Your task to perform on an android device: Go to privacy settings Image 0: 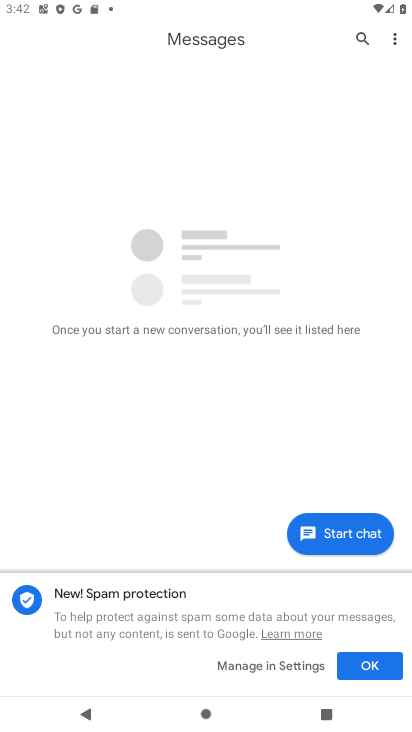
Step 0: press home button
Your task to perform on an android device: Go to privacy settings Image 1: 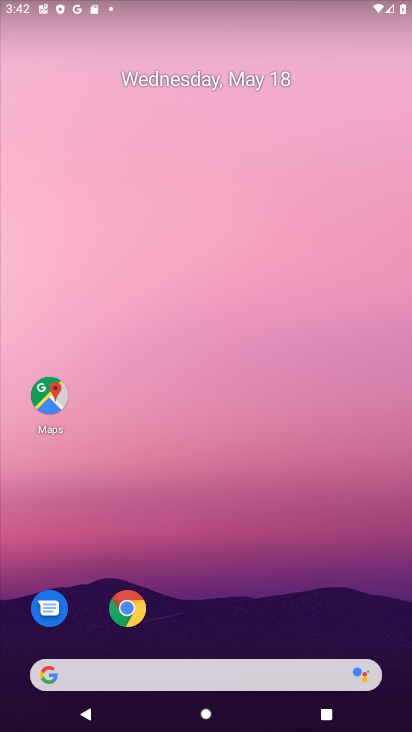
Step 1: drag from (208, 610) to (227, 199)
Your task to perform on an android device: Go to privacy settings Image 2: 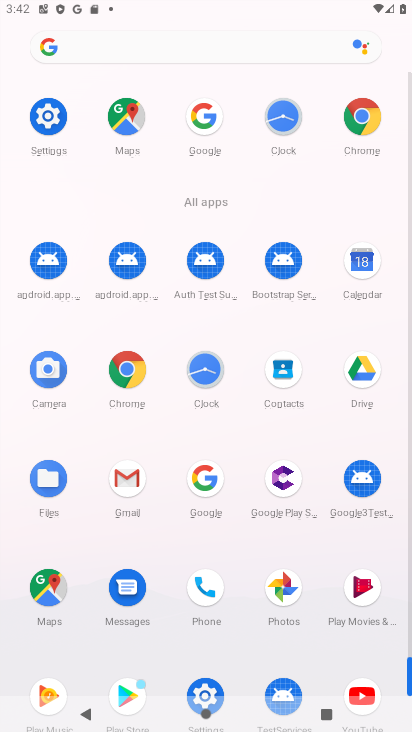
Step 2: click (38, 127)
Your task to perform on an android device: Go to privacy settings Image 3: 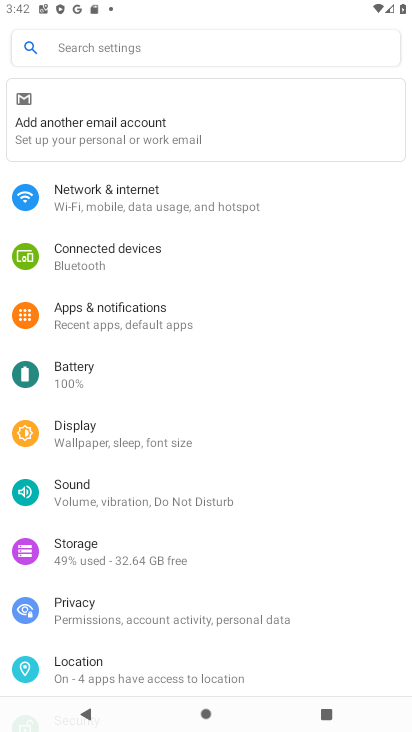
Step 3: click (136, 616)
Your task to perform on an android device: Go to privacy settings Image 4: 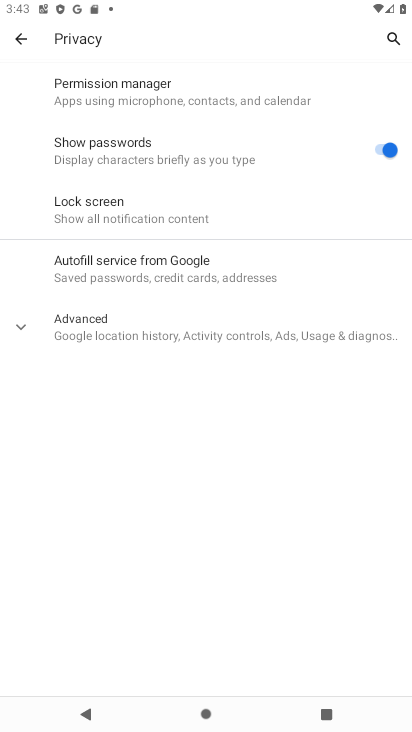
Step 4: task complete